Your task to perform on an android device: Add energizer triple a to the cart on amazon, then select checkout. Image 0: 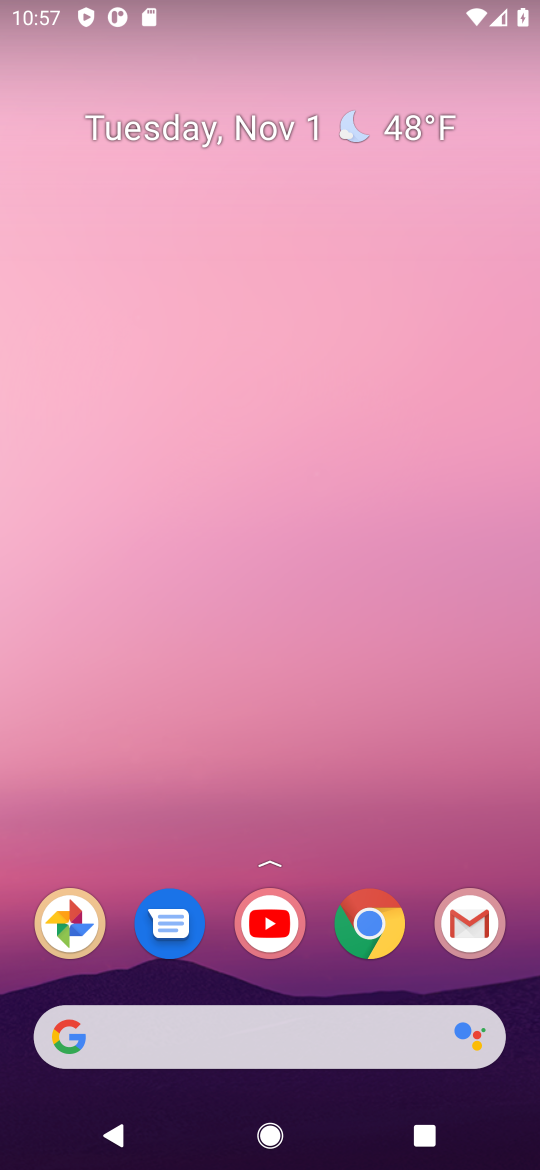
Step 0: click (371, 913)
Your task to perform on an android device: Add energizer triple a to the cart on amazon, then select checkout. Image 1: 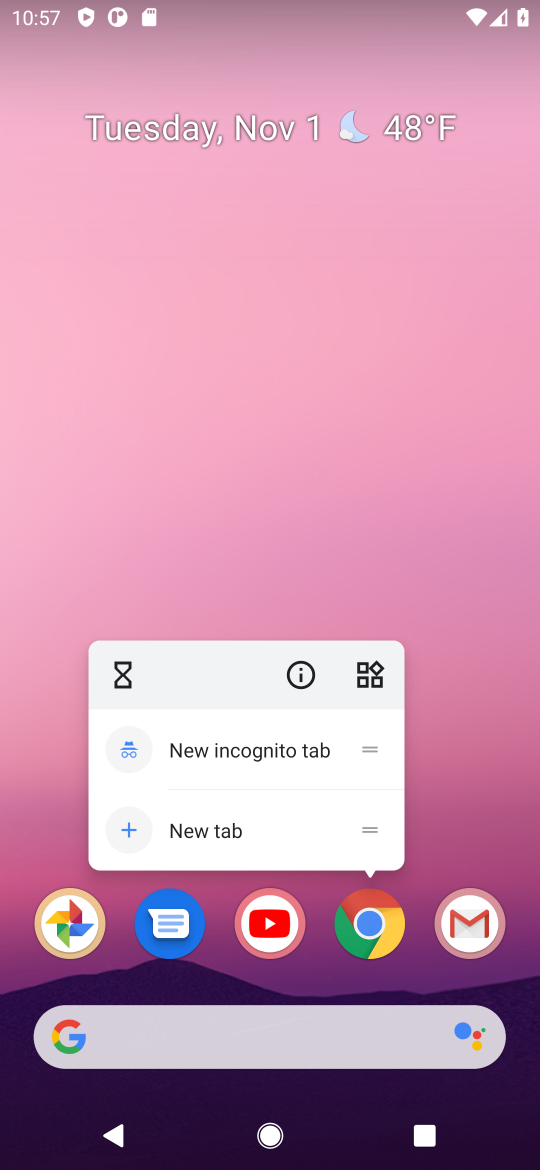
Step 1: click (397, 923)
Your task to perform on an android device: Add energizer triple a to the cart on amazon, then select checkout. Image 2: 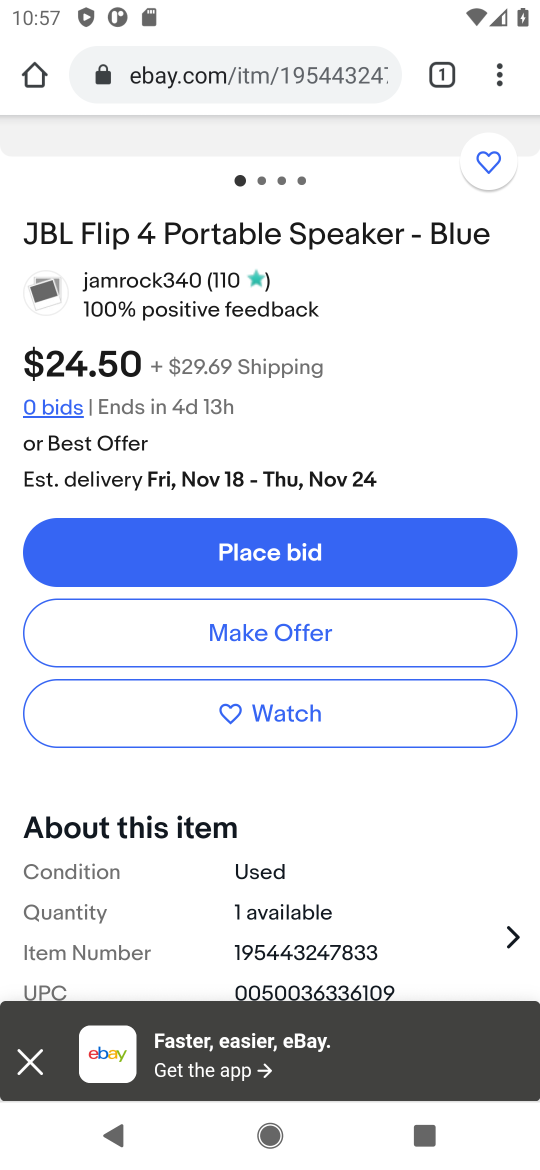
Step 2: click (292, 68)
Your task to perform on an android device: Add energizer triple a to the cart on amazon, then select checkout. Image 3: 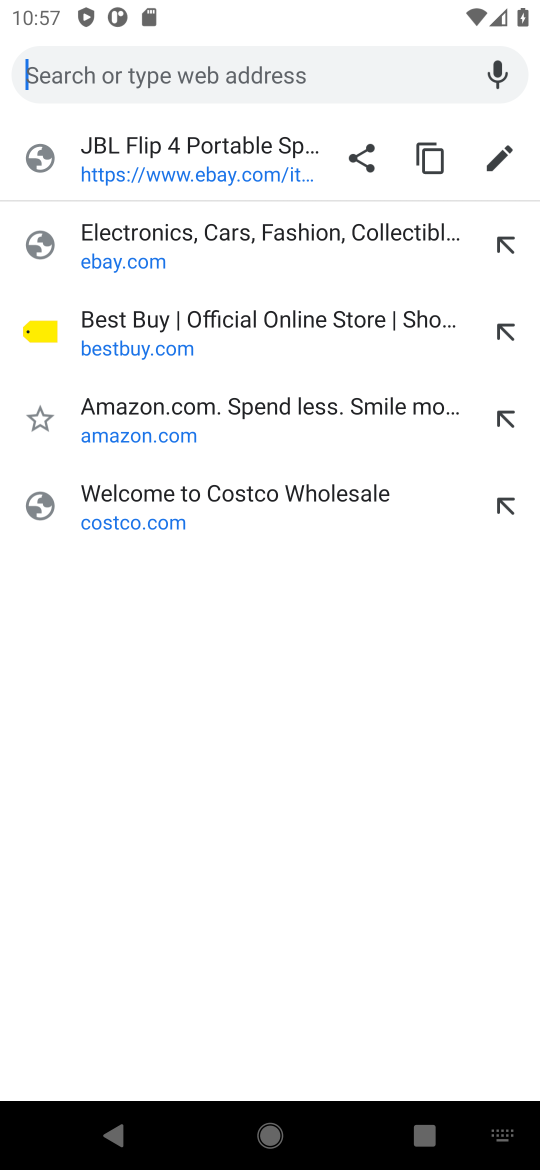
Step 3: type "amazon"
Your task to perform on an android device: Add energizer triple a to the cart on amazon, then select checkout. Image 4: 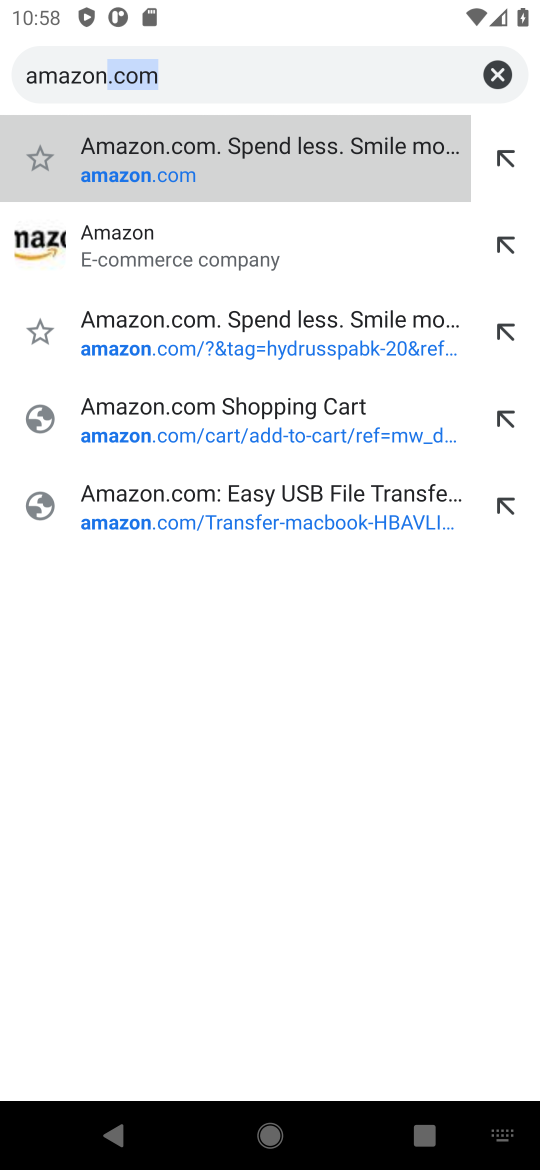
Step 4: click (307, 147)
Your task to perform on an android device: Add energizer triple a to the cart on amazon, then select checkout. Image 5: 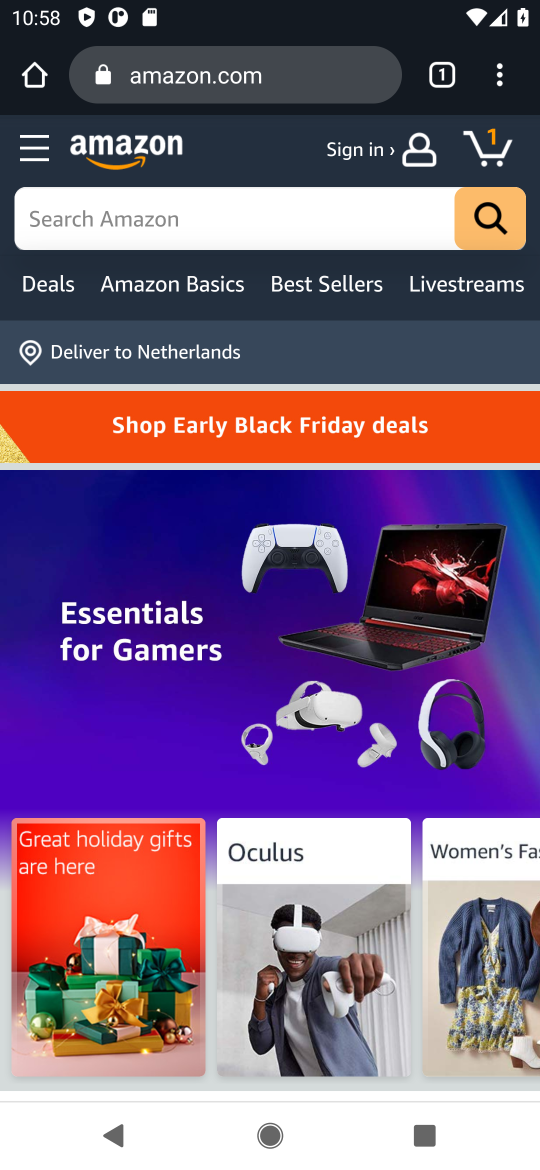
Step 5: click (234, 227)
Your task to perform on an android device: Add energizer triple a to the cart on amazon, then select checkout. Image 6: 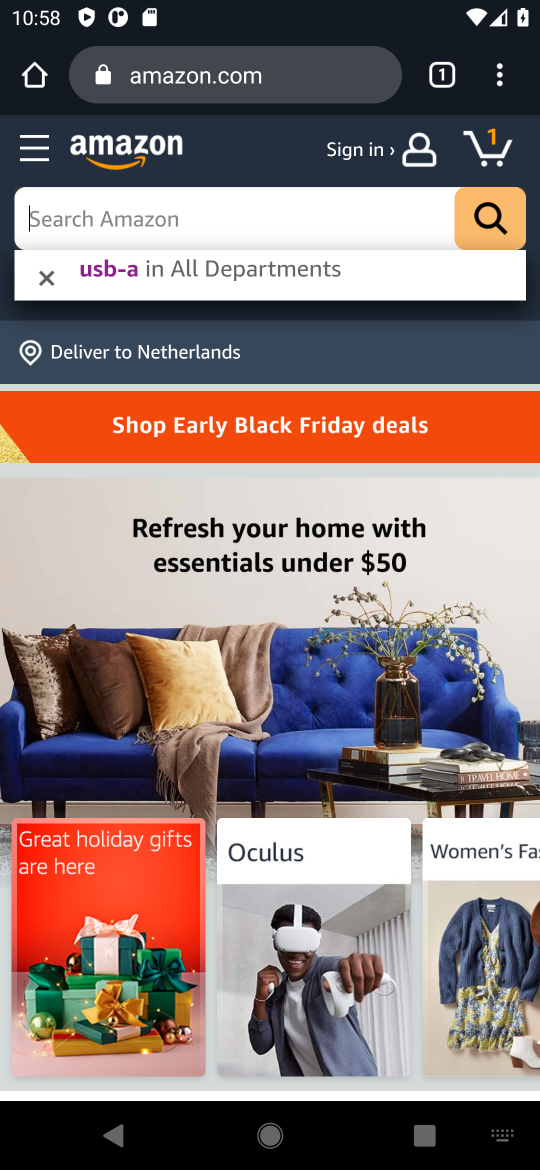
Step 6: type "triple a"
Your task to perform on an android device: Add energizer triple a to the cart on amazon, then select checkout. Image 7: 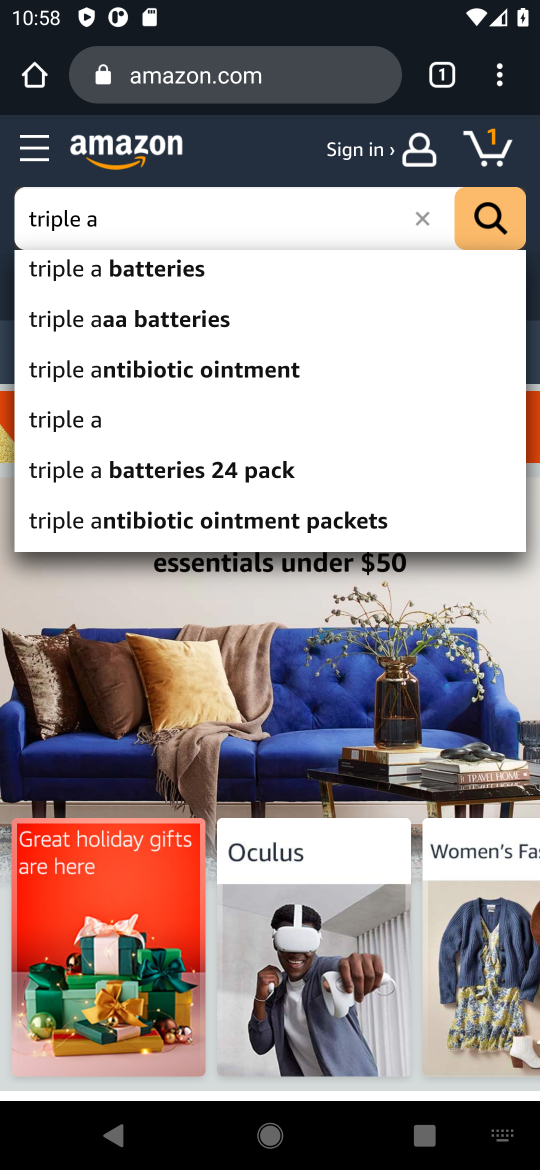
Step 7: press enter
Your task to perform on an android device: Add energizer triple a to the cart on amazon, then select checkout. Image 8: 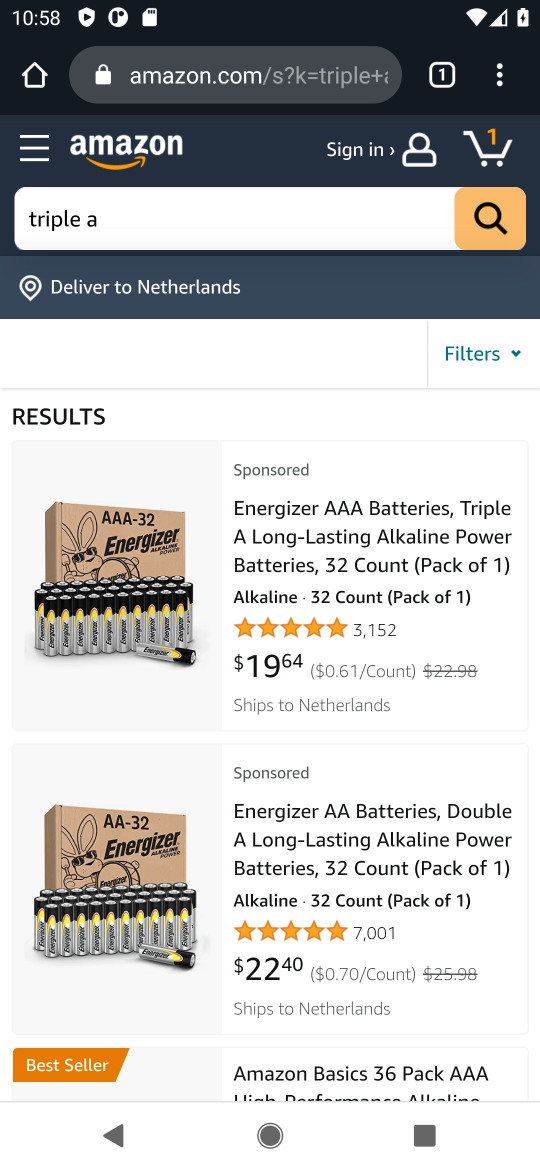
Step 8: click (295, 574)
Your task to perform on an android device: Add energizer triple a to the cart on amazon, then select checkout. Image 9: 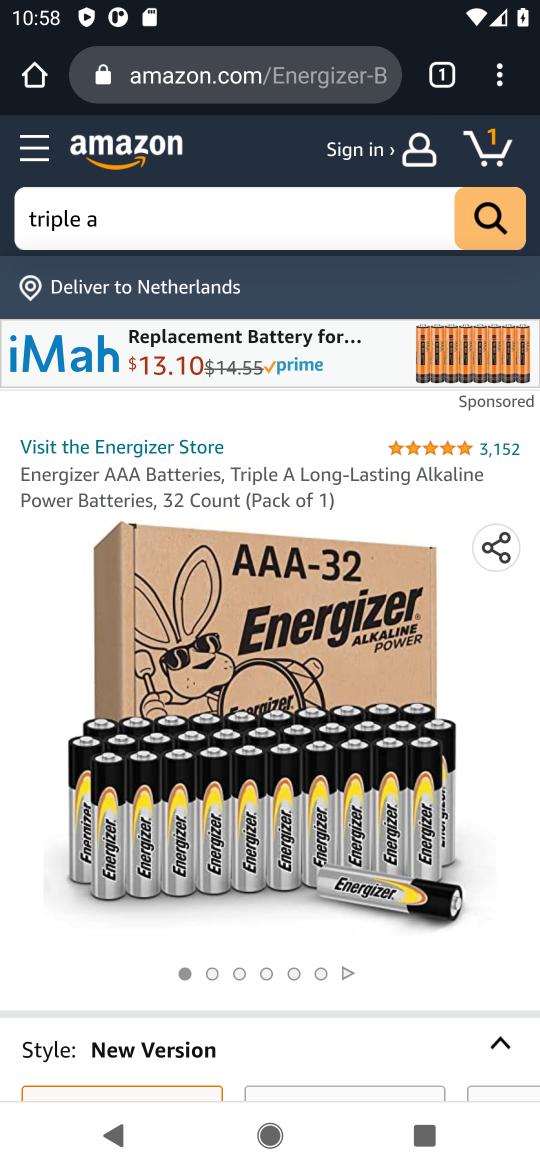
Step 9: task complete